Your task to perform on an android device: Go to battery settings Image 0: 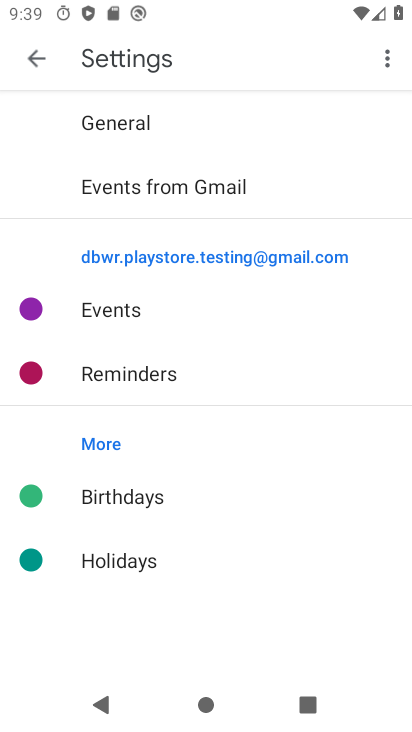
Step 0: press home button
Your task to perform on an android device: Go to battery settings Image 1: 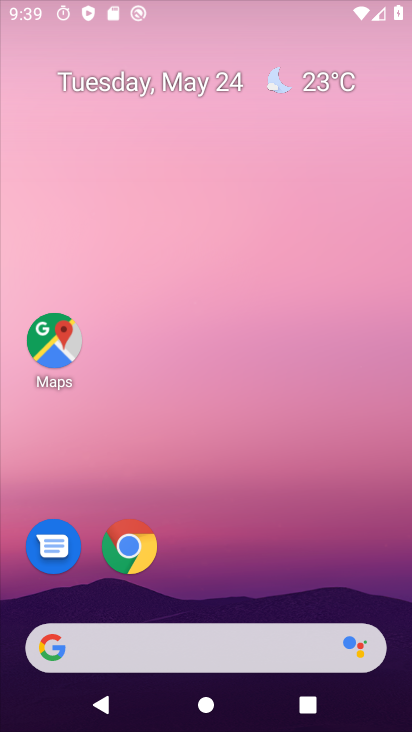
Step 1: drag from (251, 534) to (260, 46)
Your task to perform on an android device: Go to battery settings Image 2: 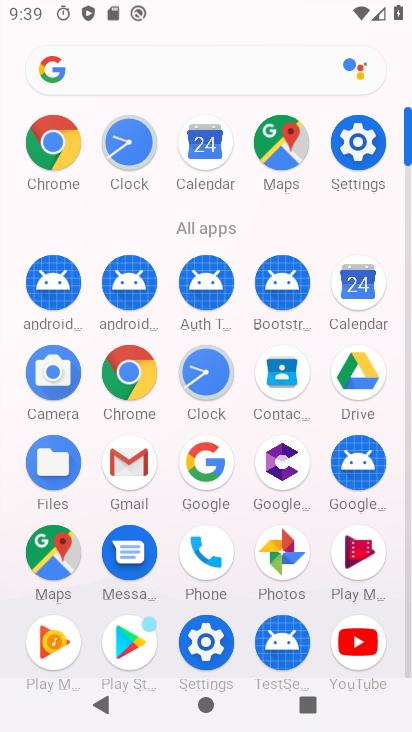
Step 2: click (361, 139)
Your task to perform on an android device: Go to battery settings Image 3: 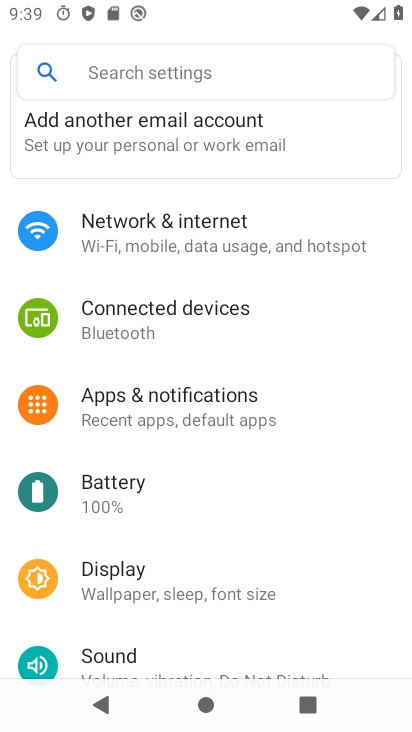
Step 3: drag from (148, 346) to (170, 137)
Your task to perform on an android device: Go to battery settings Image 4: 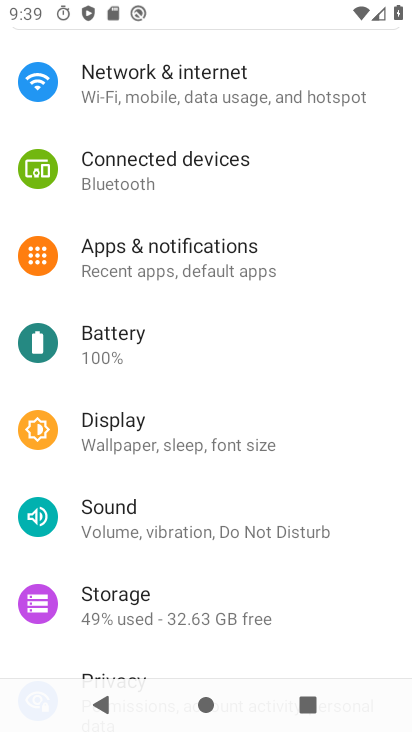
Step 4: click (127, 361)
Your task to perform on an android device: Go to battery settings Image 5: 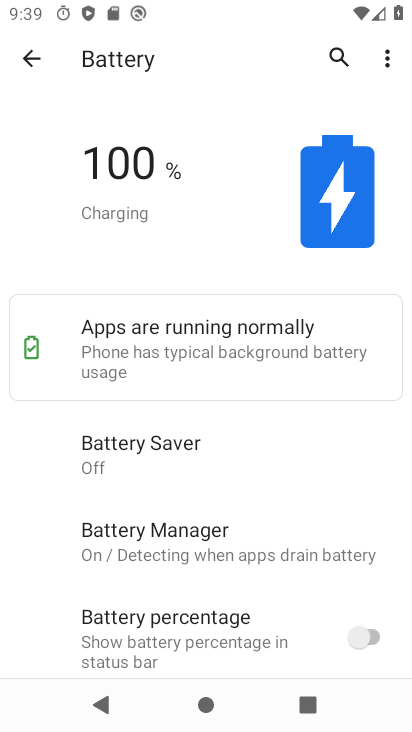
Step 5: task complete